Your task to perform on an android device: Open settings Image 0: 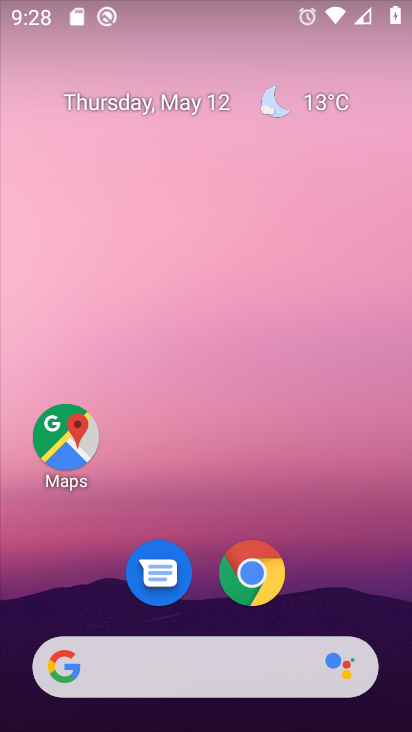
Step 0: drag from (398, 588) to (372, 242)
Your task to perform on an android device: Open settings Image 1: 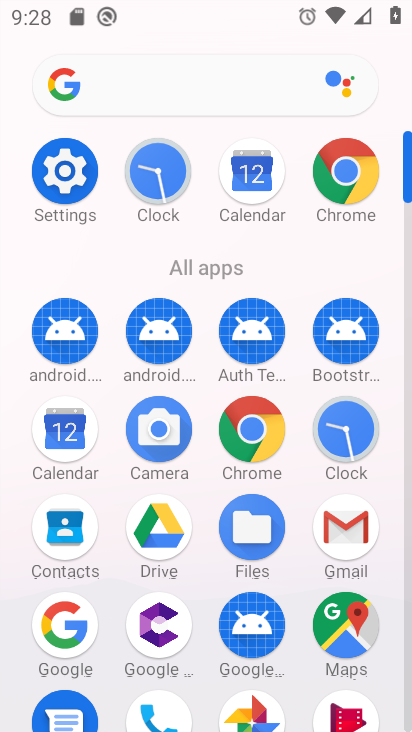
Step 1: click (74, 179)
Your task to perform on an android device: Open settings Image 2: 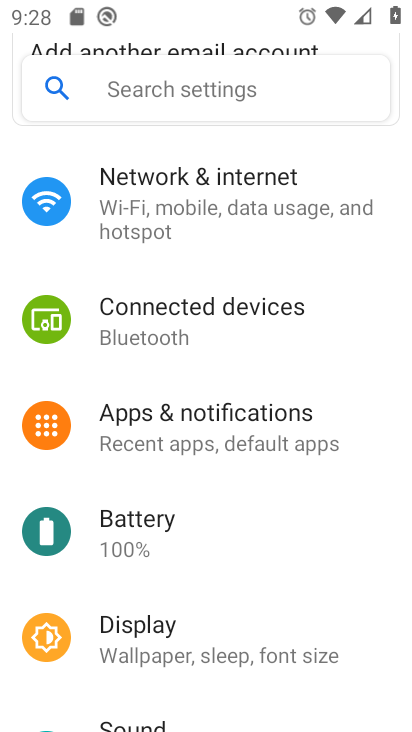
Step 2: task complete